Your task to perform on an android device: toggle javascript in the chrome app Image 0: 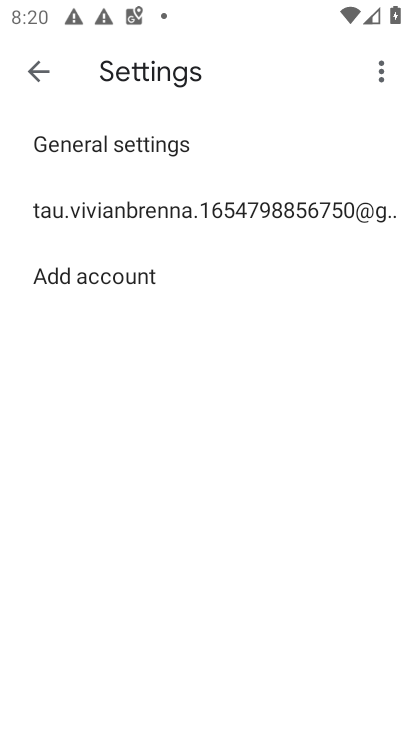
Step 0: press home button
Your task to perform on an android device: toggle javascript in the chrome app Image 1: 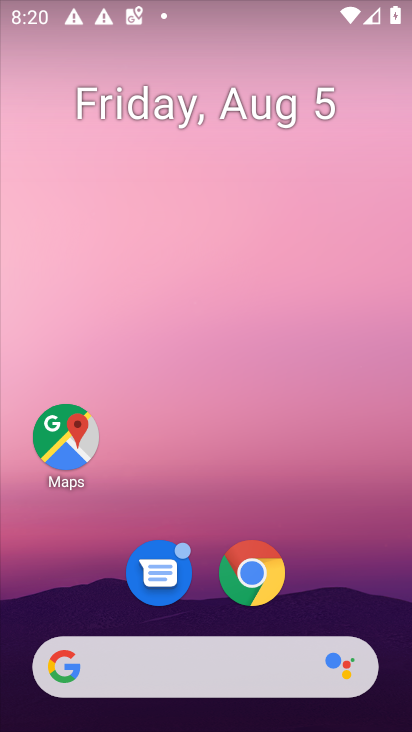
Step 1: click (251, 571)
Your task to perform on an android device: toggle javascript in the chrome app Image 2: 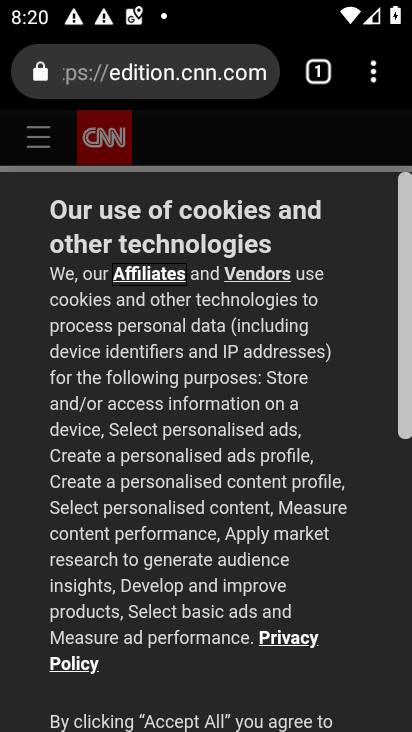
Step 2: click (377, 73)
Your task to perform on an android device: toggle javascript in the chrome app Image 3: 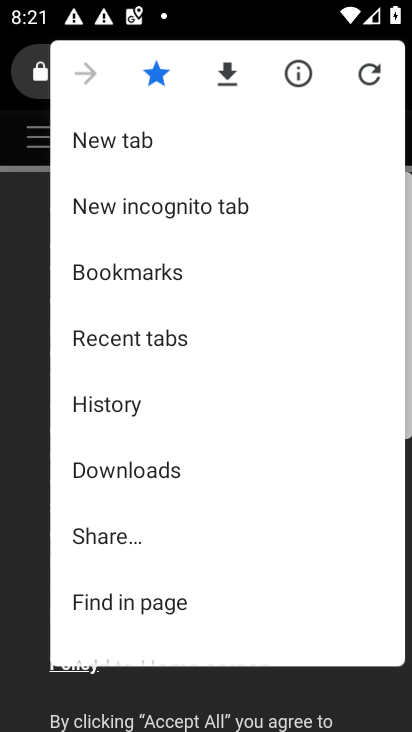
Step 3: drag from (188, 498) to (239, 407)
Your task to perform on an android device: toggle javascript in the chrome app Image 4: 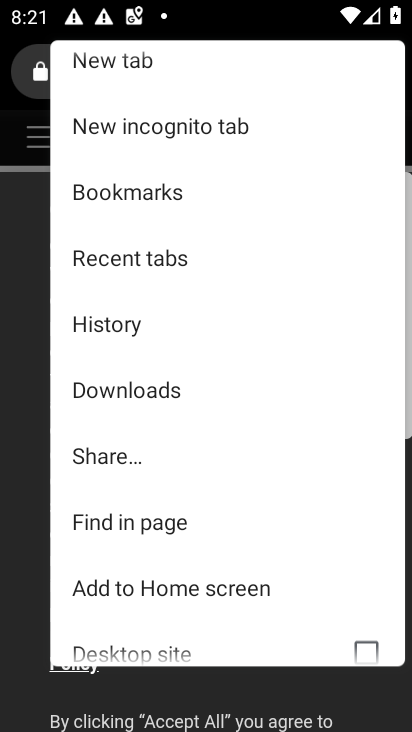
Step 4: drag from (175, 540) to (246, 449)
Your task to perform on an android device: toggle javascript in the chrome app Image 5: 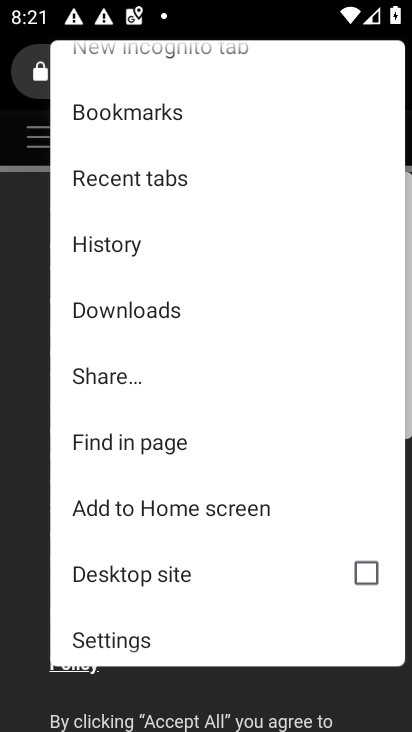
Step 5: drag from (162, 535) to (262, 409)
Your task to perform on an android device: toggle javascript in the chrome app Image 6: 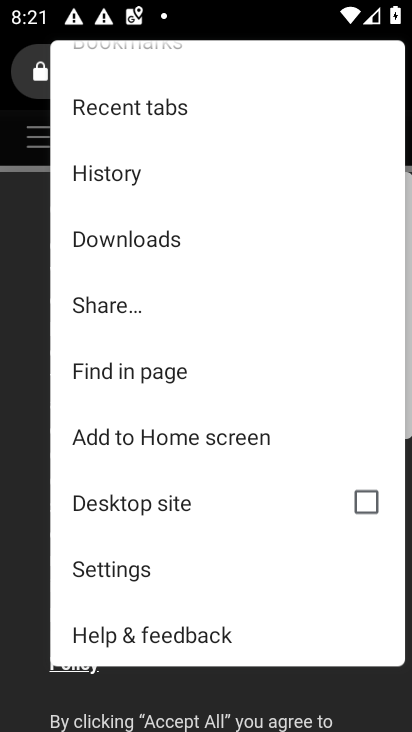
Step 6: drag from (196, 533) to (248, 459)
Your task to perform on an android device: toggle javascript in the chrome app Image 7: 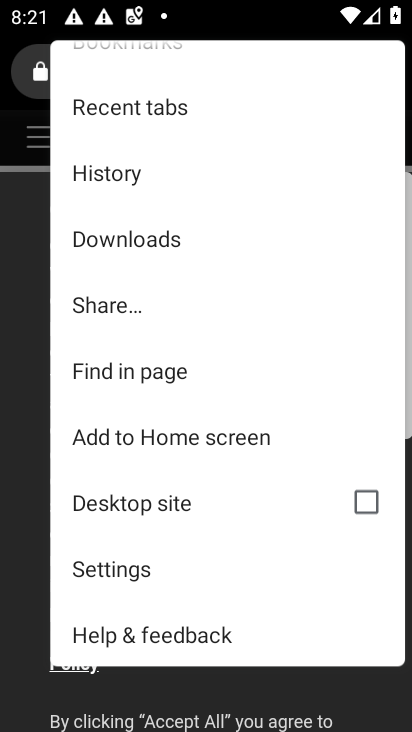
Step 7: click (146, 559)
Your task to perform on an android device: toggle javascript in the chrome app Image 8: 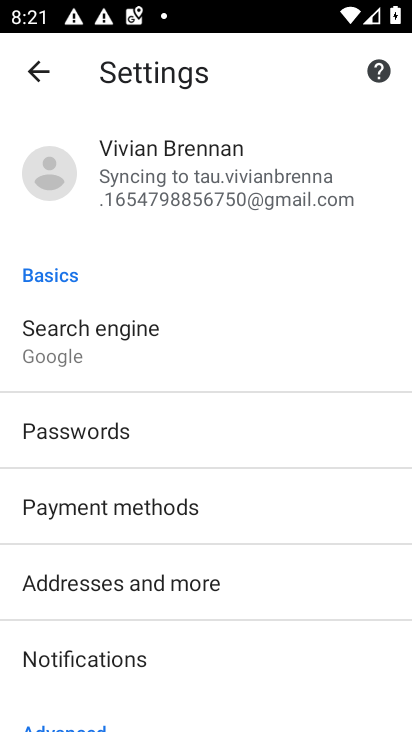
Step 8: drag from (189, 639) to (238, 523)
Your task to perform on an android device: toggle javascript in the chrome app Image 9: 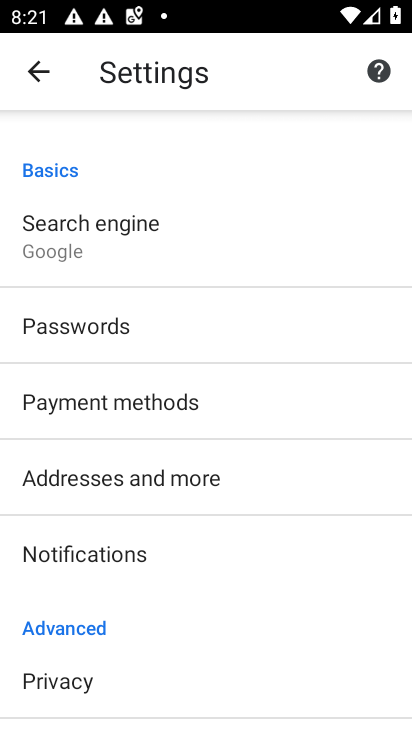
Step 9: drag from (181, 564) to (208, 456)
Your task to perform on an android device: toggle javascript in the chrome app Image 10: 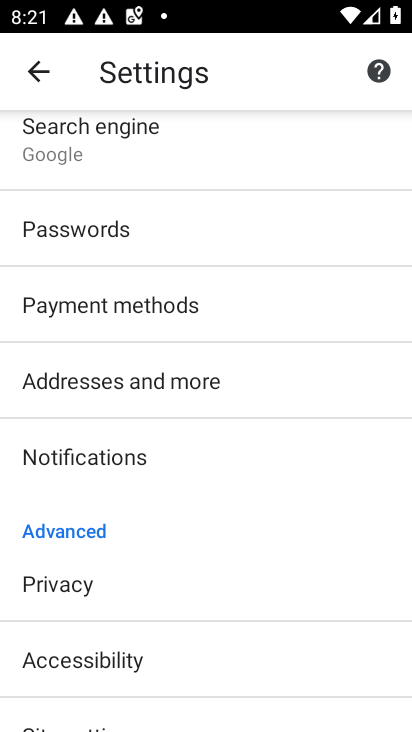
Step 10: drag from (148, 530) to (200, 418)
Your task to perform on an android device: toggle javascript in the chrome app Image 11: 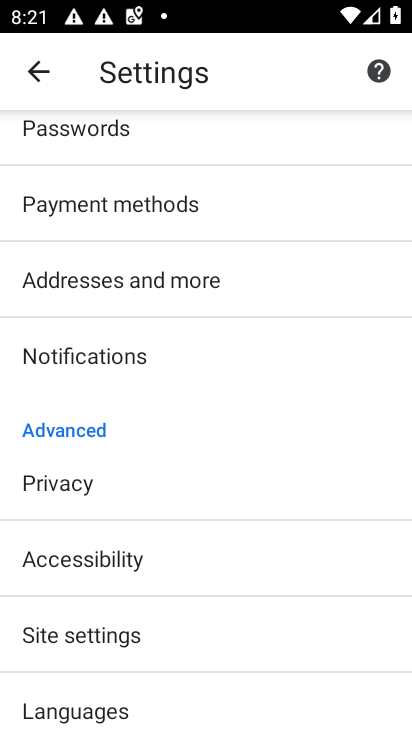
Step 11: click (230, 414)
Your task to perform on an android device: toggle javascript in the chrome app Image 12: 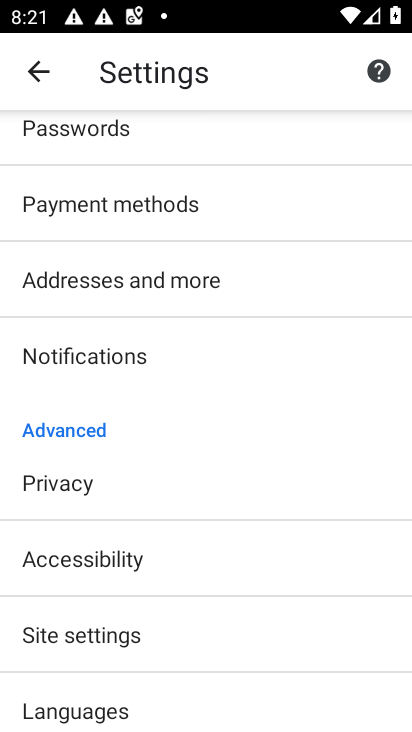
Step 12: click (108, 638)
Your task to perform on an android device: toggle javascript in the chrome app Image 13: 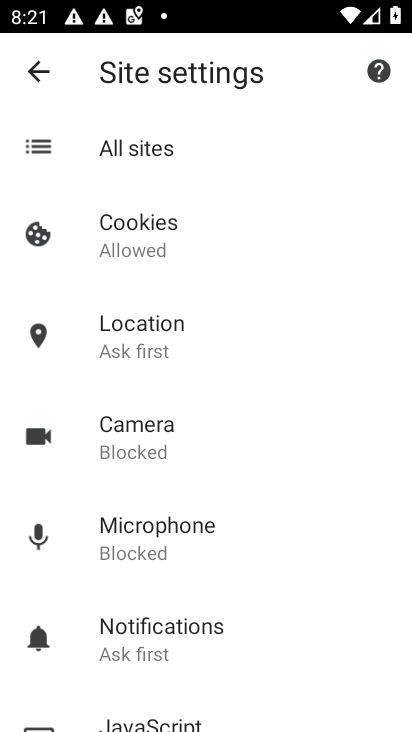
Step 13: drag from (175, 556) to (249, 449)
Your task to perform on an android device: toggle javascript in the chrome app Image 14: 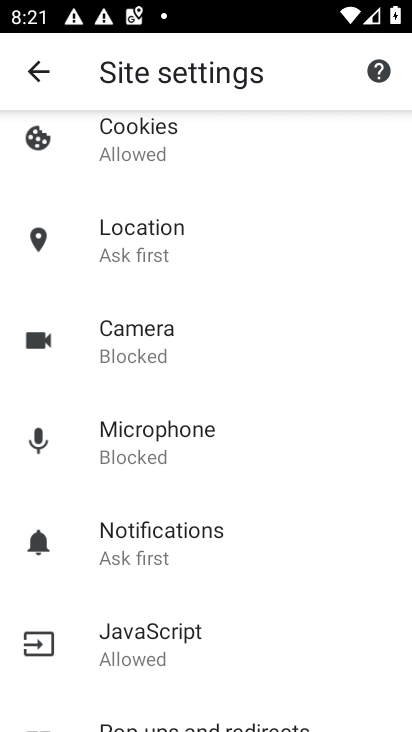
Step 14: click (195, 636)
Your task to perform on an android device: toggle javascript in the chrome app Image 15: 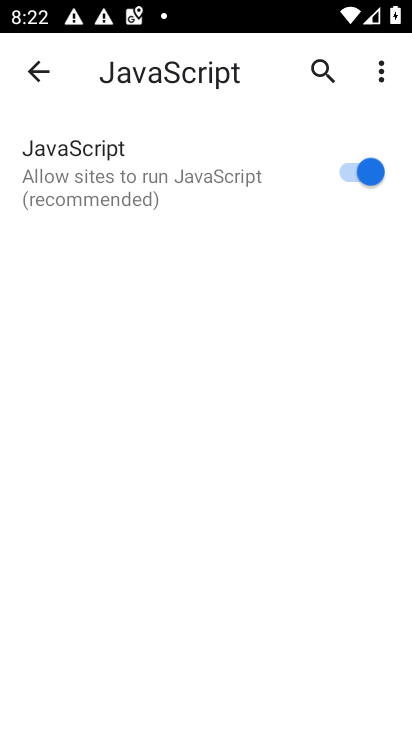
Step 15: click (364, 177)
Your task to perform on an android device: toggle javascript in the chrome app Image 16: 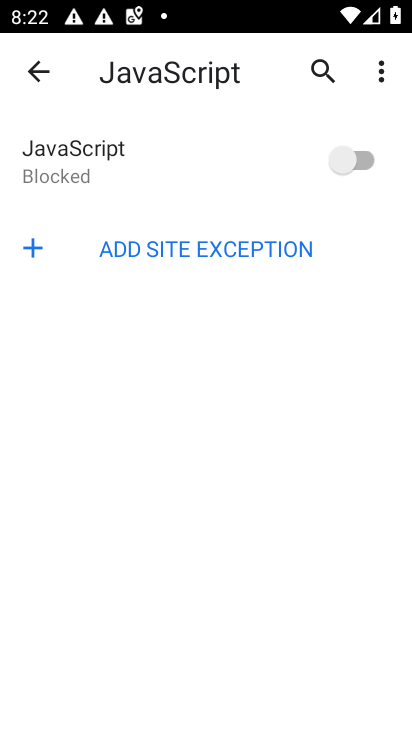
Step 16: task complete